Your task to perform on an android device: Go to privacy settings Image 0: 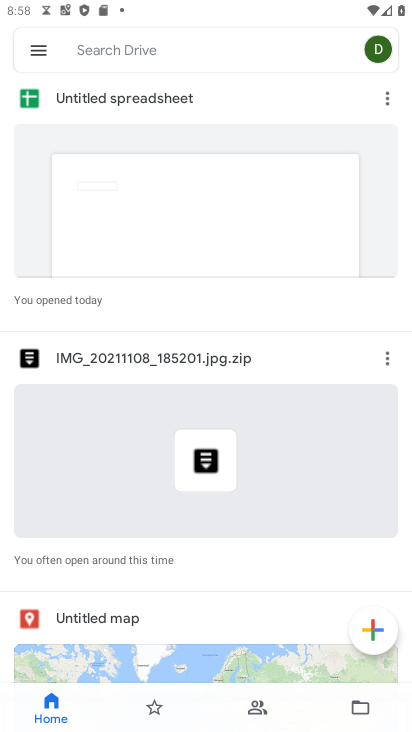
Step 0: press home button
Your task to perform on an android device: Go to privacy settings Image 1: 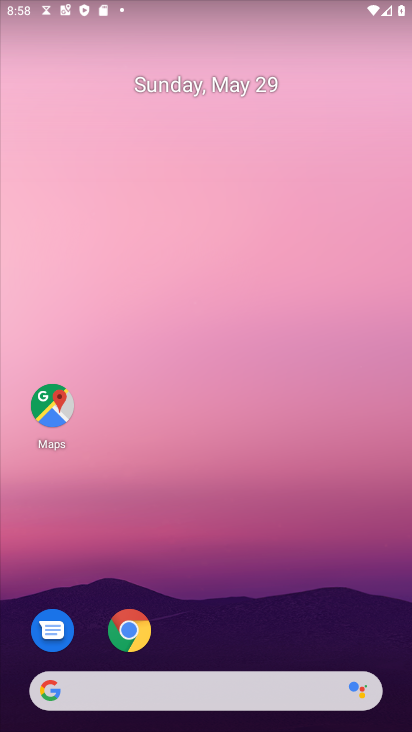
Step 1: drag from (244, 585) to (165, 189)
Your task to perform on an android device: Go to privacy settings Image 2: 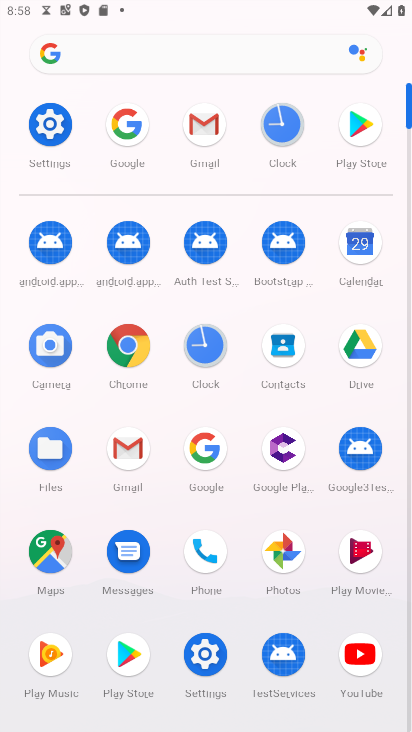
Step 2: click (55, 124)
Your task to perform on an android device: Go to privacy settings Image 3: 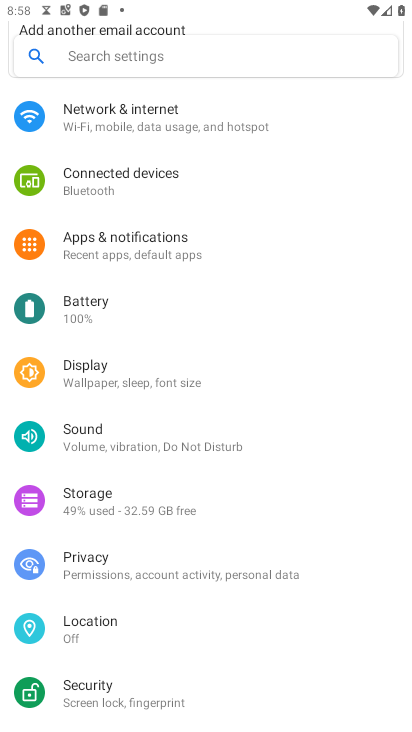
Step 3: click (123, 565)
Your task to perform on an android device: Go to privacy settings Image 4: 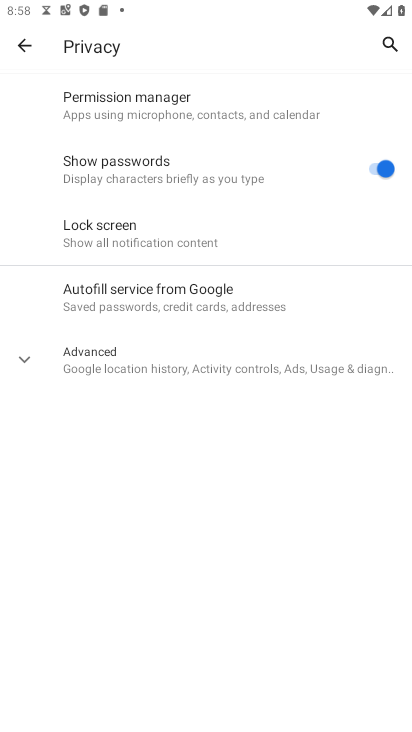
Step 4: task complete